Your task to perform on an android device: check battery use Image 0: 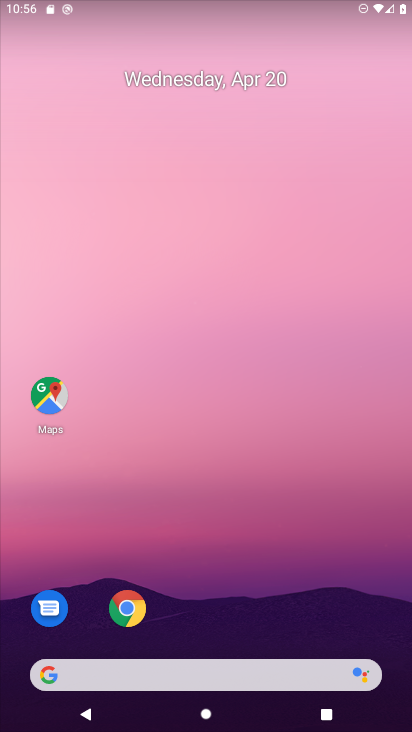
Step 0: press home button
Your task to perform on an android device: check battery use Image 1: 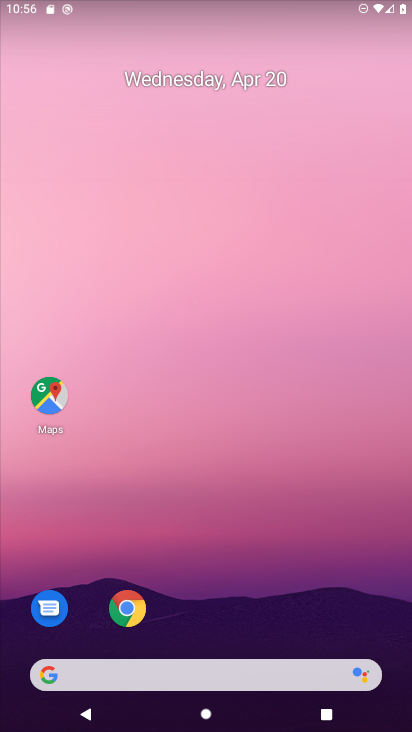
Step 1: drag from (282, 550) to (292, 155)
Your task to perform on an android device: check battery use Image 2: 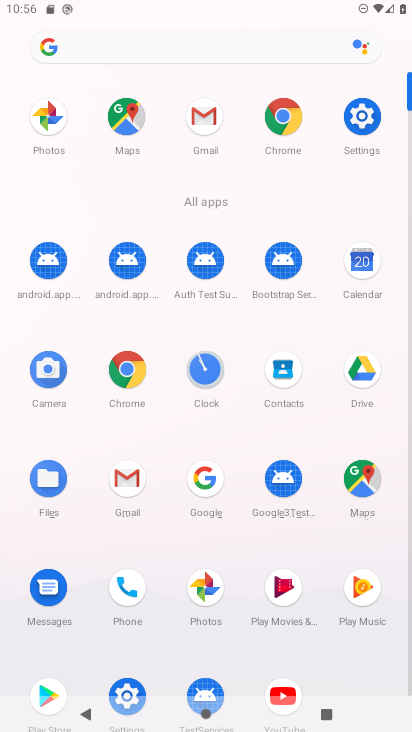
Step 2: click (366, 119)
Your task to perform on an android device: check battery use Image 3: 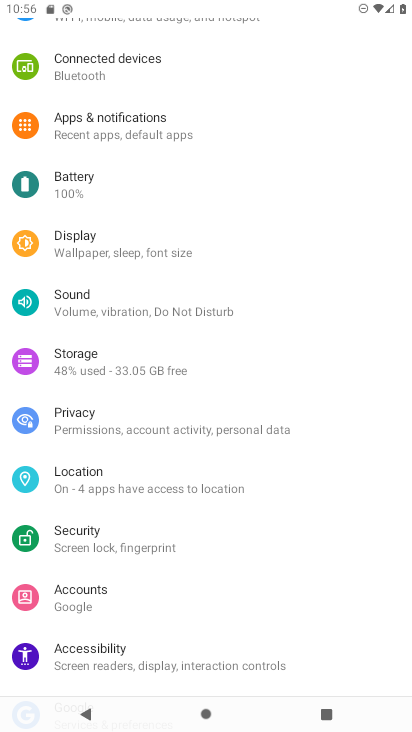
Step 3: click (150, 192)
Your task to perform on an android device: check battery use Image 4: 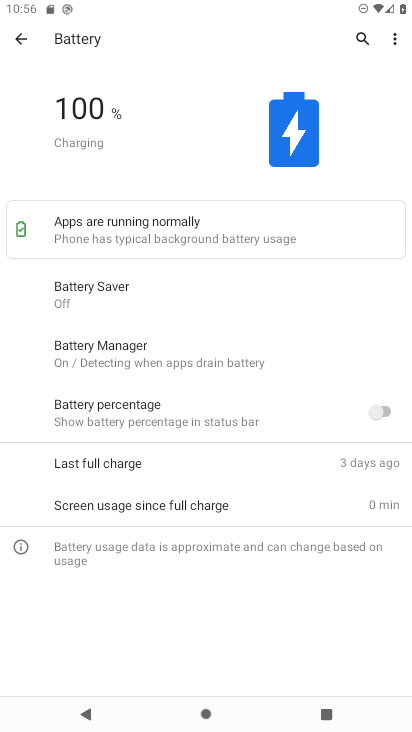
Step 4: task complete